Your task to perform on an android device: Open Google Chrome Image 0: 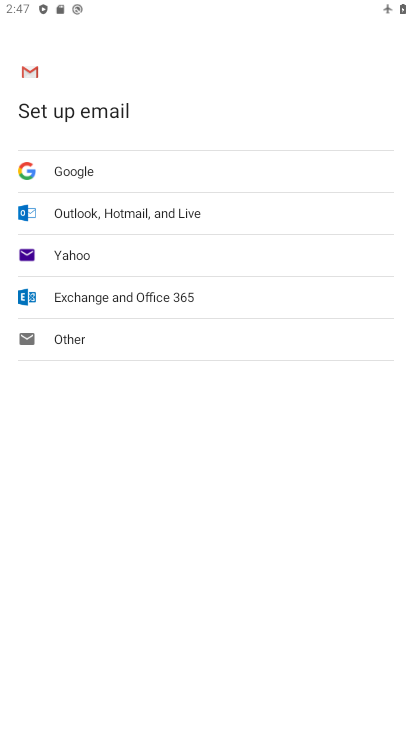
Step 0: press home button
Your task to perform on an android device: Open Google Chrome Image 1: 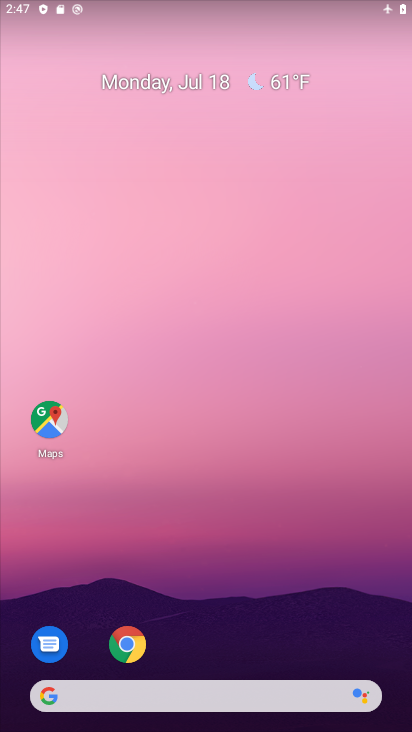
Step 1: click (132, 637)
Your task to perform on an android device: Open Google Chrome Image 2: 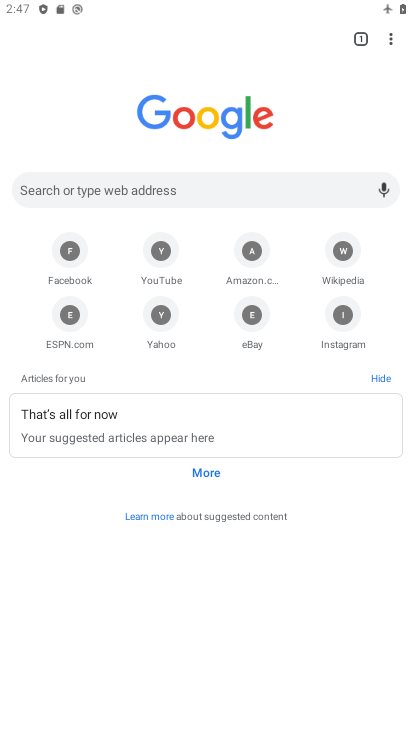
Step 2: task complete